Your task to perform on an android device: check the backup settings in the google photos Image 0: 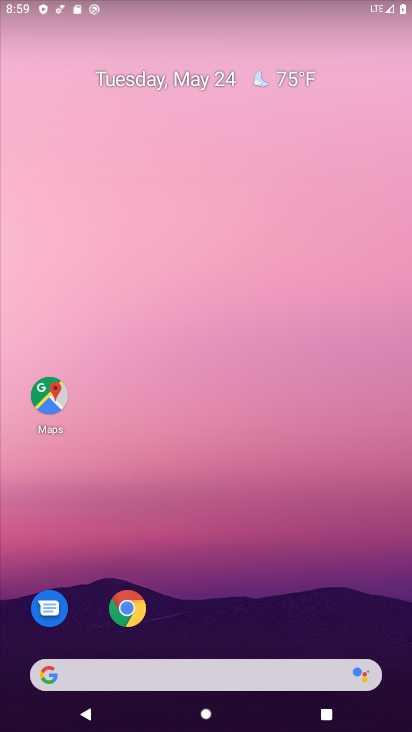
Step 0: drag from (268, 587) to (181, 18)
Your task to perform on an android device: check the backup settings in the google photos Image 1: 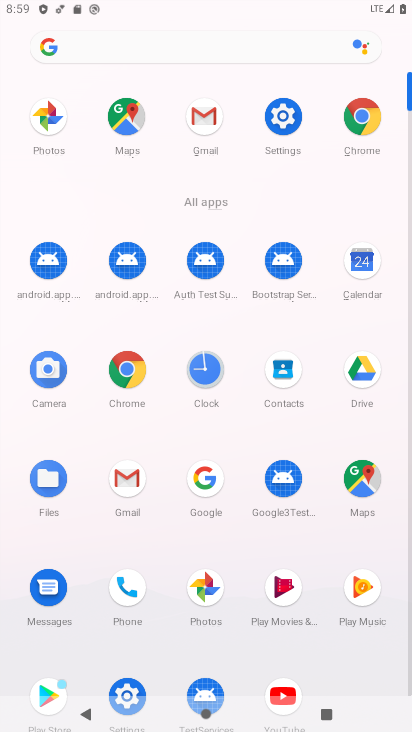
Step 1: click (289, 116)
Your task to perform on an android device: check the backup settings in the google photos Image 2: 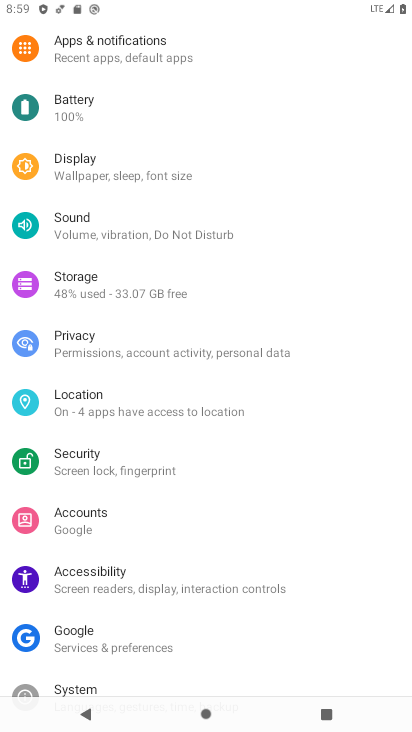
Step 2: press home button
Your task to perform on an android device: check the backup settings in the google photos Image 3: 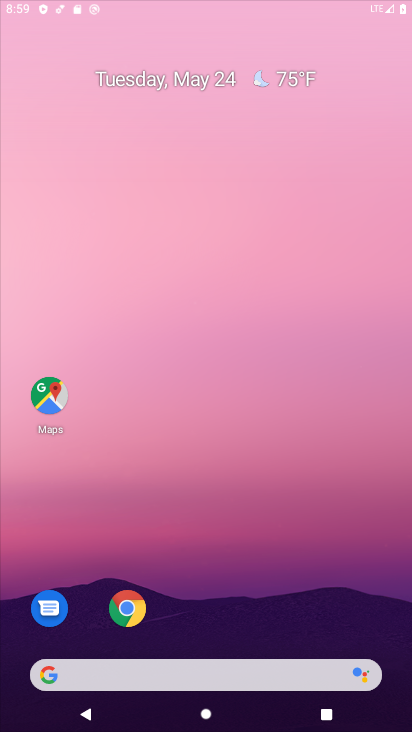
Step 3: drag from (307, 649) to (217, 41)
Your task to perform on an android device: check the backup settings in the google photos Image 4: 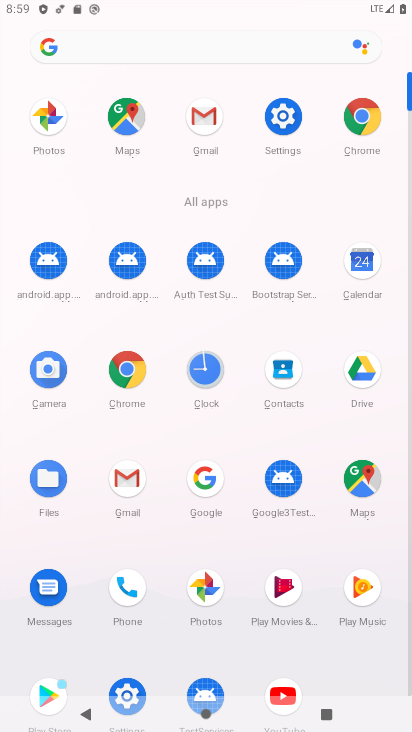
Step 4: click (212, 589)
Your task to perform on an android device: check the backup settings in the google photos Image 5: 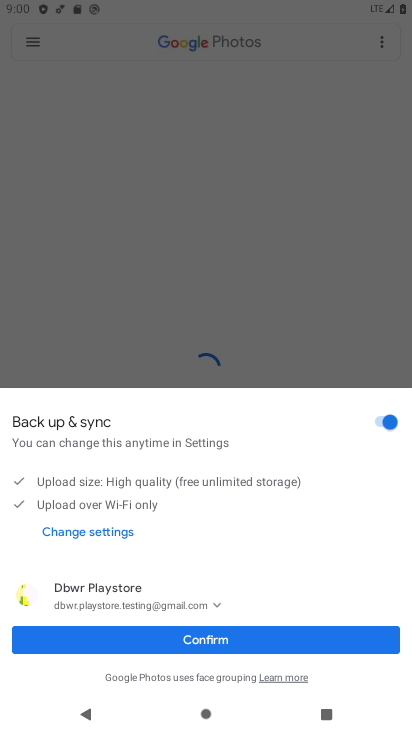
Step 5: click (236, 640)
Your task to perform on an android device: check the backup settings in the google photos Image 6: 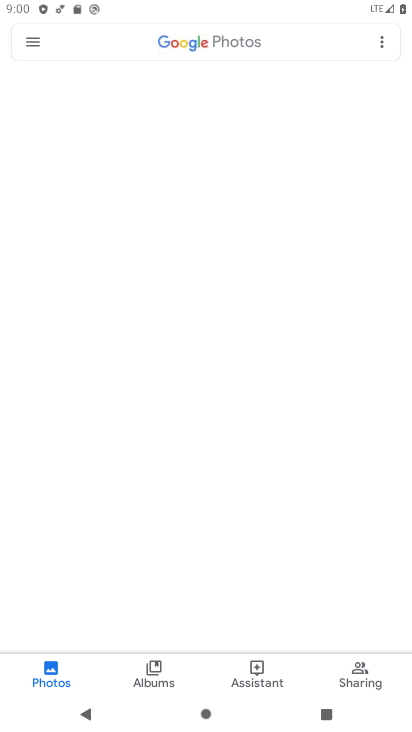
Step 6: click (34, 44)
Your task to perform on an android device: check the backup settings in the google photos Image 7: 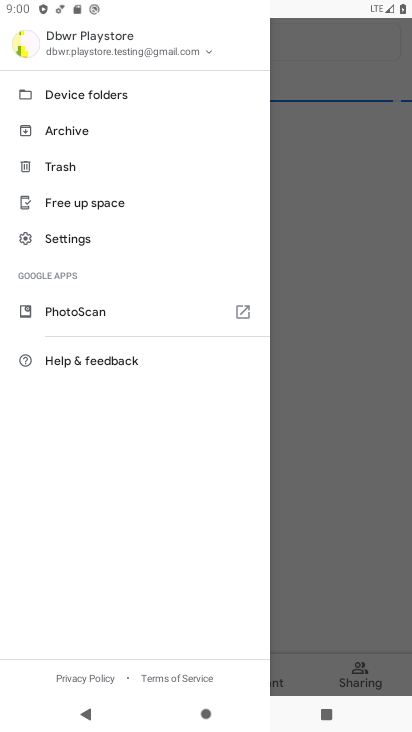
Step 7: click (102, 238)
Your task to perform on an android device: check the backup settings in the google photos Image 8: 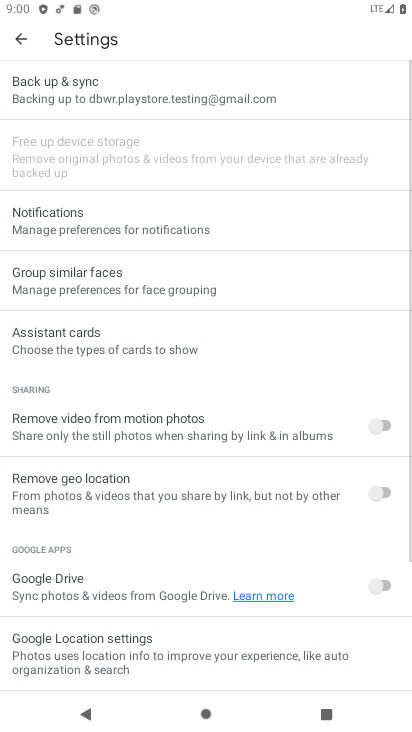
Step 8: click (119, 100)
Your task to perform on an android device: check the backup settings in the google photos Image 9: 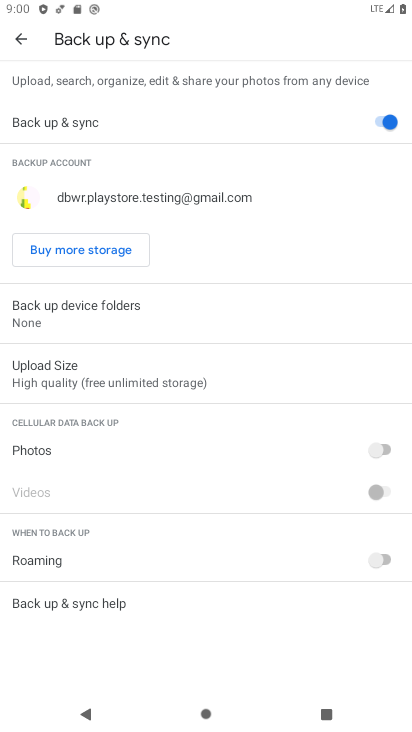
Step 9: task complete